Your task to perform on an android device: star an email in the gmail app Image 0: 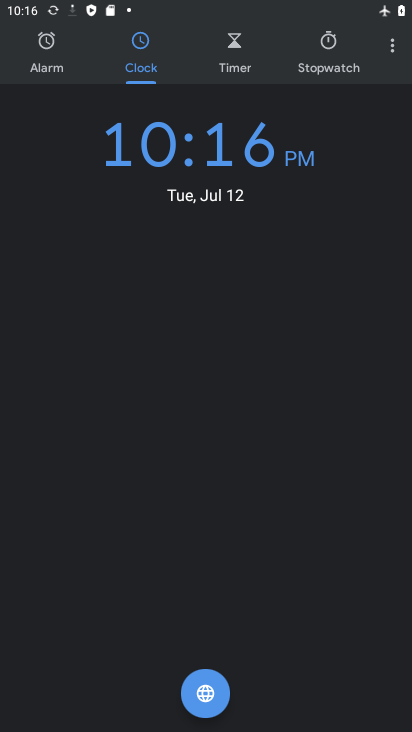
Step 0: press home button
Your task to perform on an android device: star an email in the gmail app Image 1: 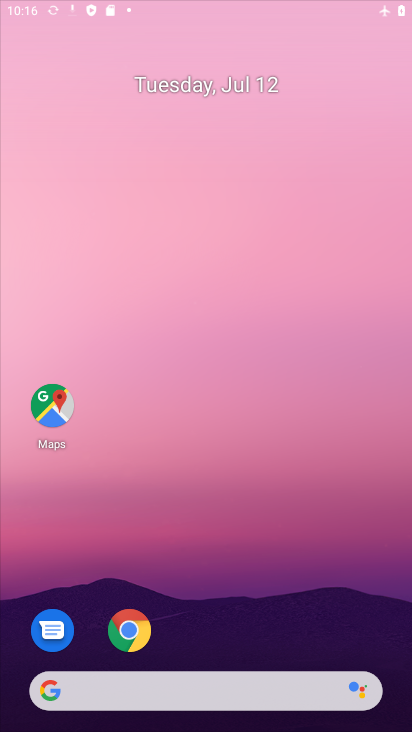
Step 1: drag from (226, 638) to (240, 164)
Your task to perform on an android device: star an email in the gmail app Image 2: 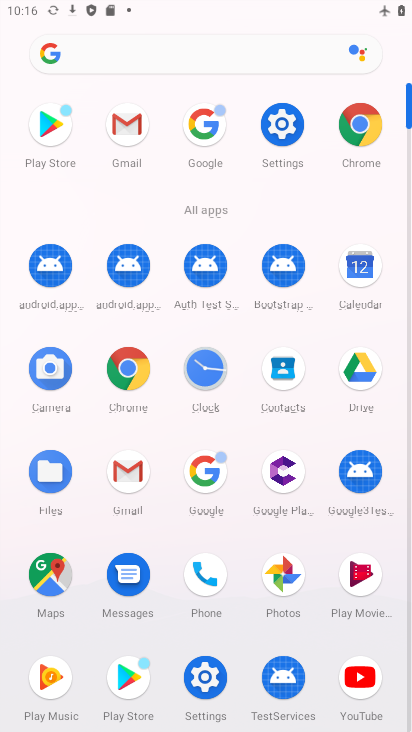
Step 2: click (130, 122)
Your task to perform on an android device: star an email in the gmail app Image 3: 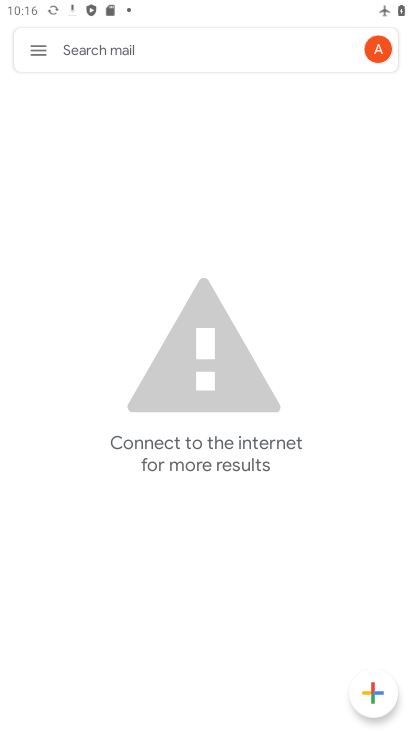
Step 3: task complete